Your task to perform on an android device: change the clock display to show seconds Image 0: 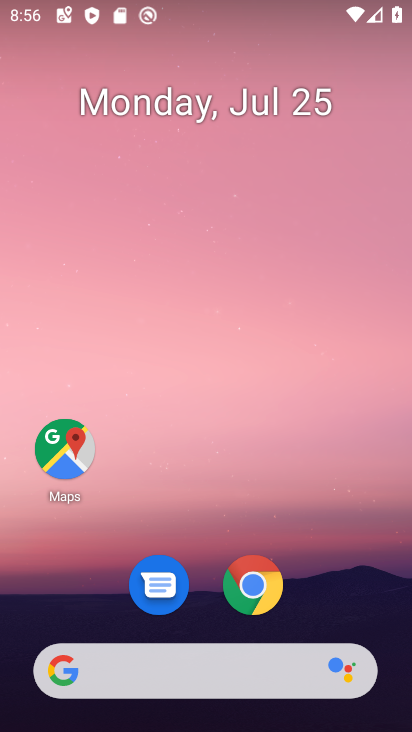
Step 0: drag from (210, 676) to (399, 62)
Your task to perform on an android device: change the clock display to show seconds Image 1: 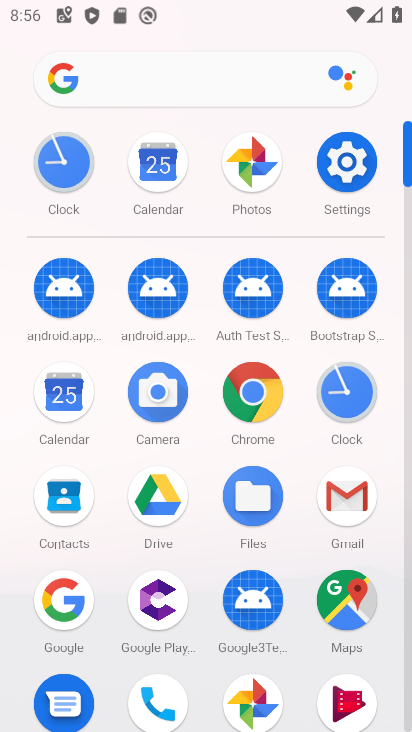
Step 1: click (340, 395)
Your task to perform on an android device: change the clock display to show seconds Image 2: 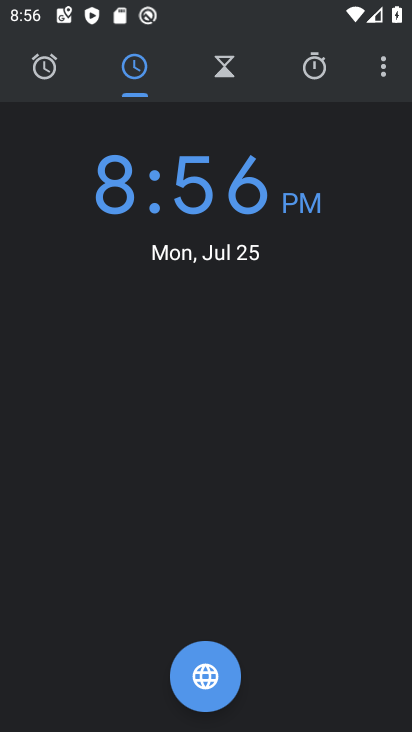
Step 2: click (383, 73)
Your task to perform on an android device: change the clock display to show seconds Image 3: 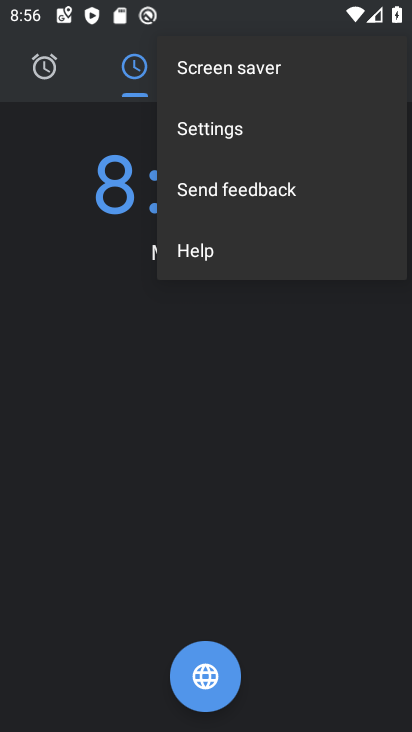
Step 3: click (251, 129)
Your task to perform on an android device: change the clock display to show seconds Image 4: 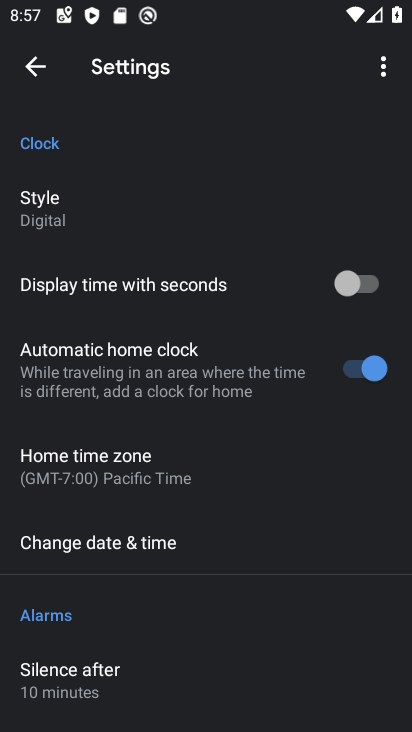
Step 4: click (364, 286)
Your task to perform on an android device: change the clock display to show seconds Image 5: 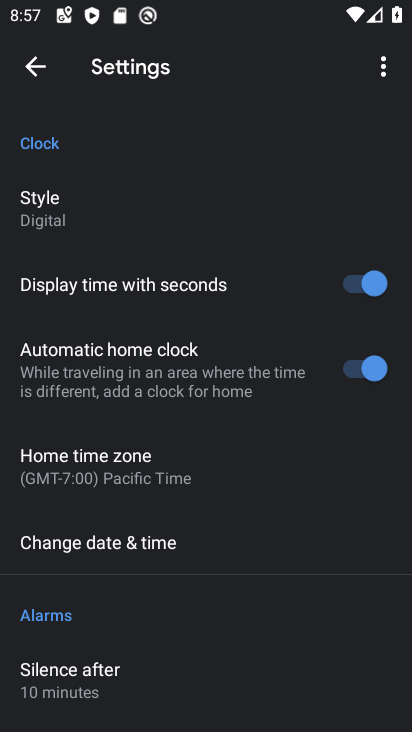
Step 5: task complete